Your task to perform on an android device: delete the emails in spam in the gmail app Image 0: 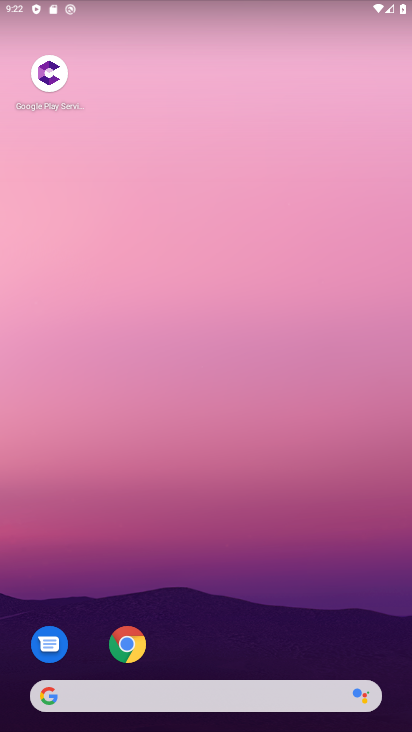
Step 0: drag from (298, 662) to (193, 37)
Your task to perform on an android device: delete the emails in spam in the gmail app Image 1: 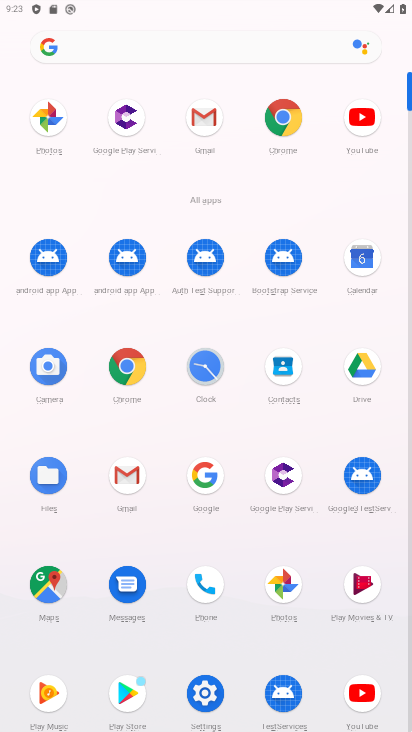
Step 1: click (112, 467)
Your task to perform on an android device: delete the emails in spam in the gmail app Image 2: 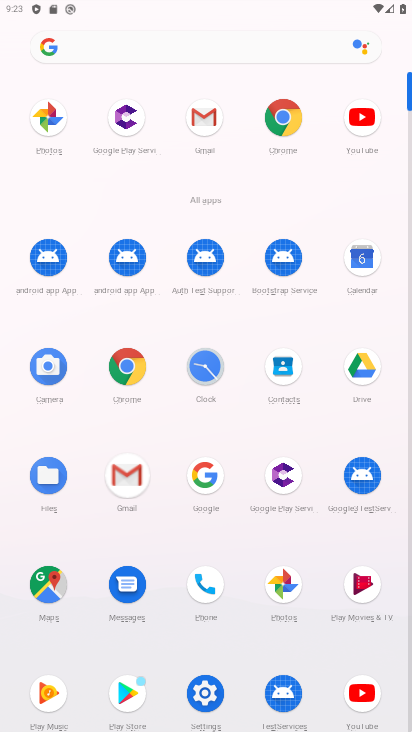
Step 2: click (111, 466)
Your task to perform on an android device: delete the emails in spam in the gmail app Image 3: 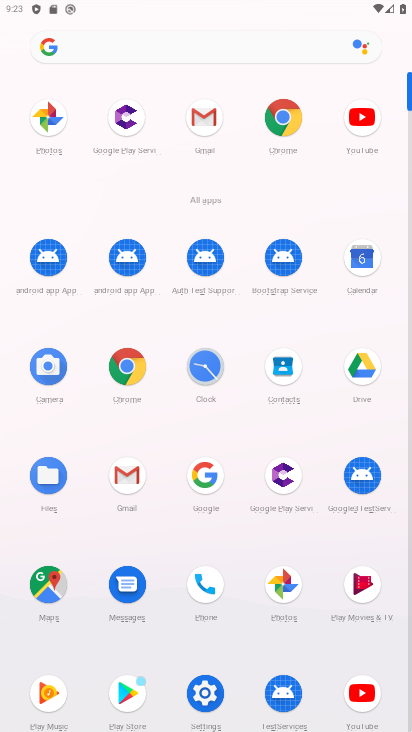
Step 3: click (118, 466)
Your task to perform on an android device: delete the emails in spam in the gmail app Image 4: 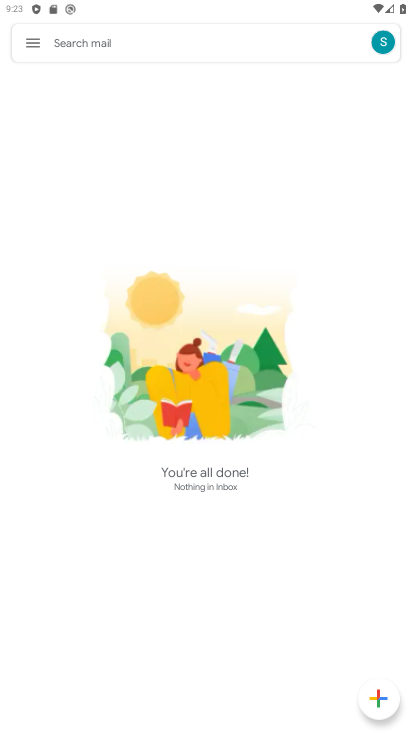
Step 4: click (24, 47)
Your task to perform on an android device: delete the emails in spam in the gmail app Image 5: 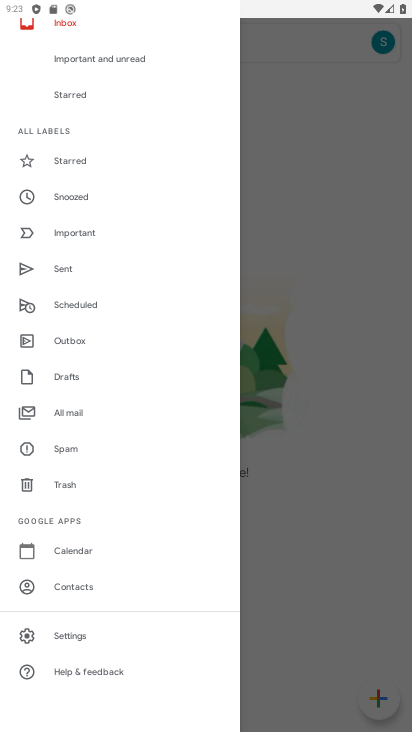
Step 5: click (84, 415)
Your task to perform on an android device: delete the emails in spam in the gmail app Image 6: 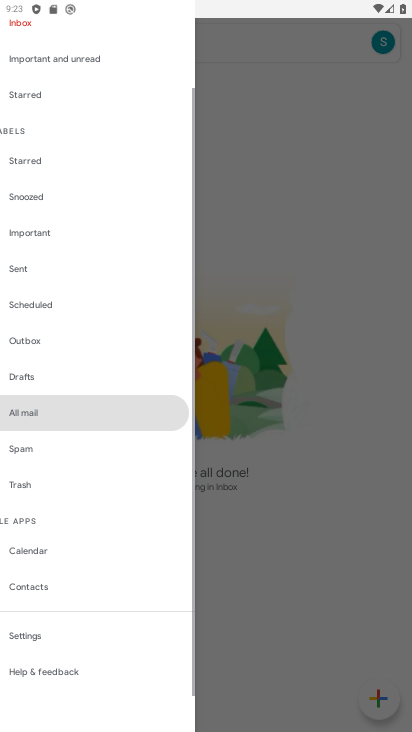
Step 6: click (72, 401)
Your task to perform on an android device: delete the emails in spam in the gmail app Image 7: 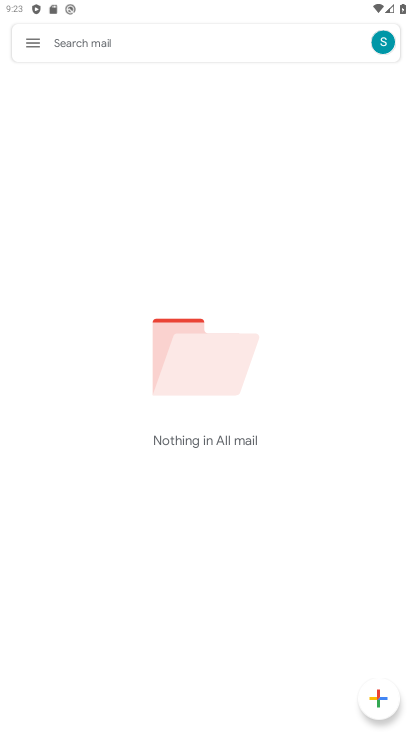
Step 7: click (5, 30)
Your task to perform on an android device: delete the emails in spam in the gmail app Image 8: 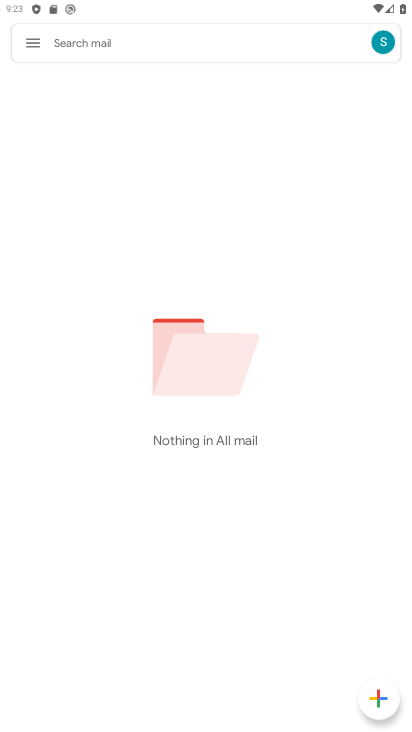
Step 8: click (21, 46)
Your task to perform on an android device: delete the emails in spam in the gmail app Image 9: 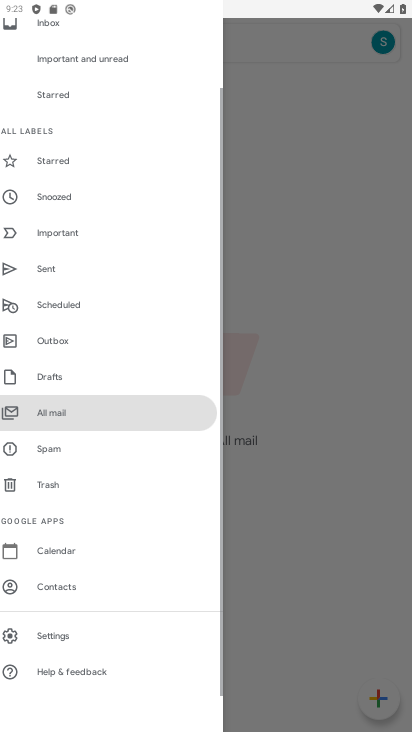
Step 9: click (17, 52)
Your task to perform on an android device: delete the emails in spam in the gmail app Image 10: 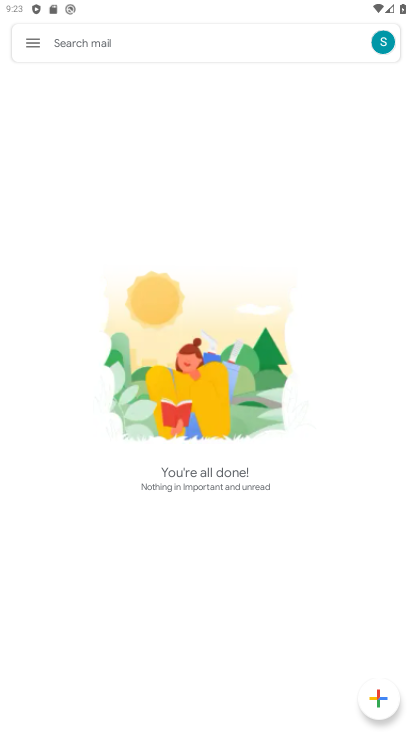
Step 10: click (39, 50)
Your task to perform on an android device: delete the emails in spam in the gmail app Image 11: 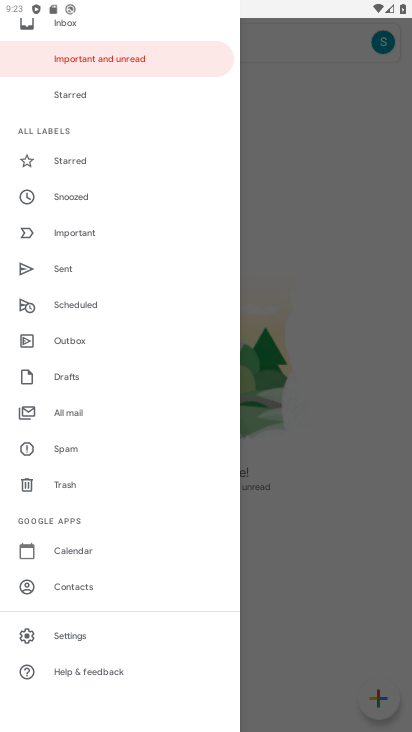
Step 11: click (66, 448)
Your task to perform on an android device: delete the emails in spam in the gmail app Image 12: 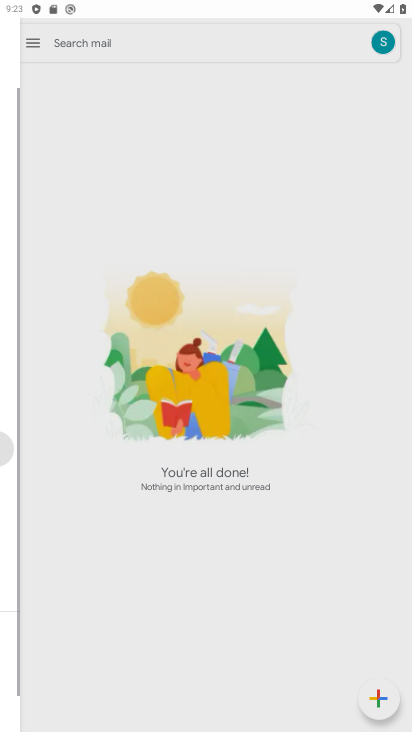
Step 12: click (70, 447)
Your task to perform on an android device: delete the emails in spam in the gmail app Image 13: 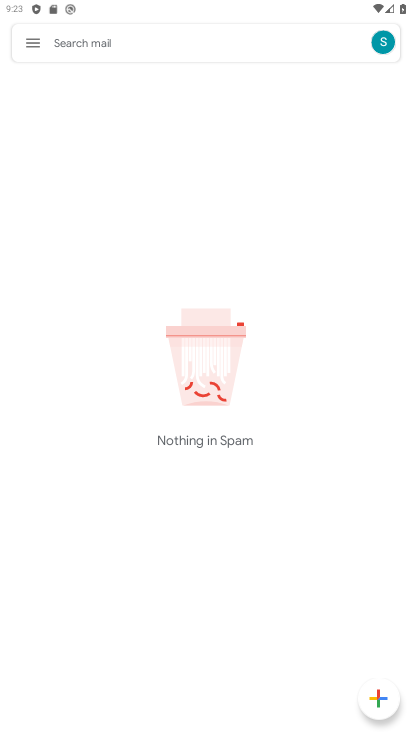
Step 13: task complete